Your task to perform on an android device: Search for "usb-a" on amazon.com, select the first entry, and add it to the cart. Image 0: 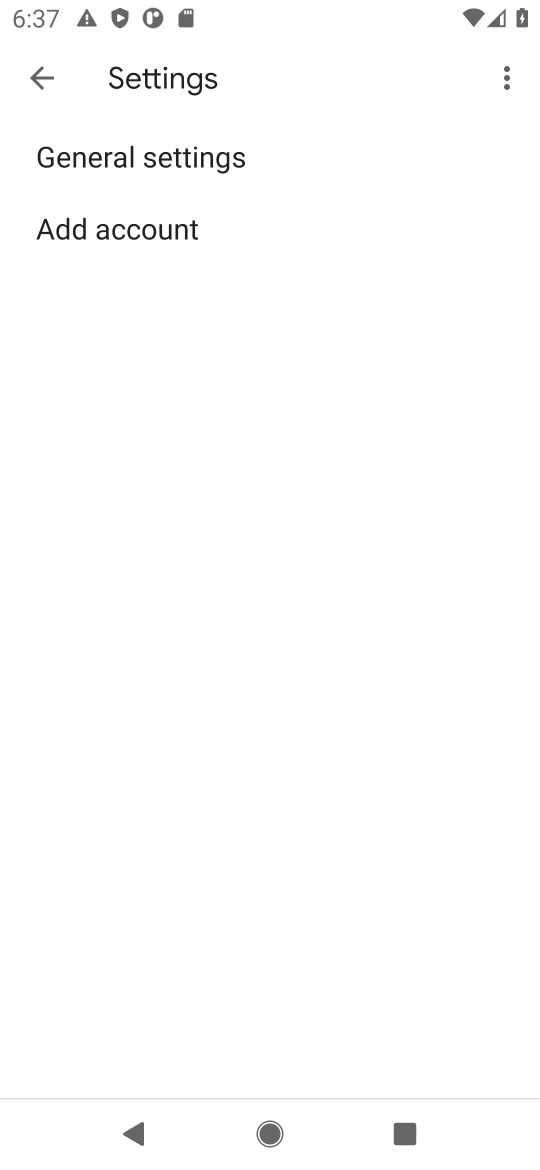
Step 0: press home button
Your task to perform on an android device: Search for "usb-a" on amazon.com, select the first entry, and add it to the cart. Image 1: 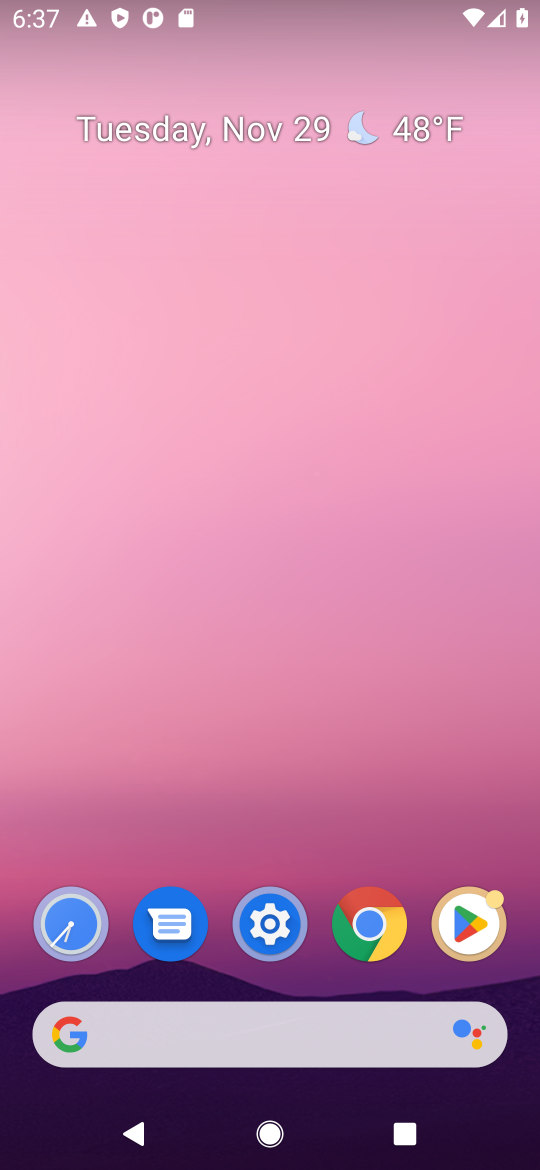
Step 1: click (164, 1056)
Your task to perform on an android device: Search for "usb-a" on amazon.com, select the first entry, and add it to the cart. Image 2: 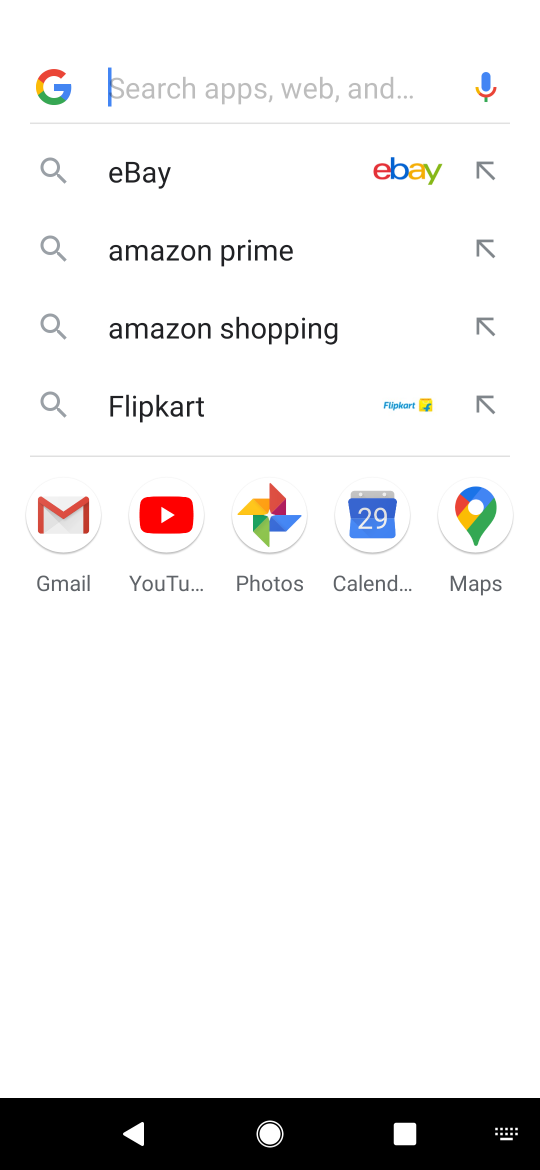
Step 2: click (179, 302)
Your task to perform on an android device: Search for "usb-a" on amazon.com, select the first entry, and add it to the cart. Image 3: 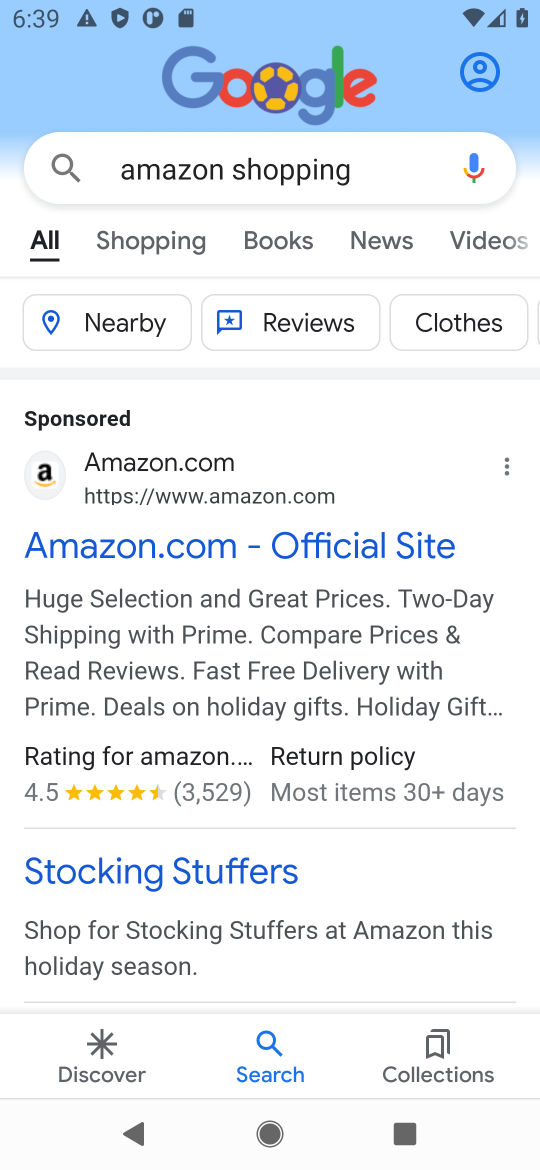
Step 3: click (69, 539)
Your task to perform on an android device: Search for "usb-a" on amazon.com, select the first entry, and add it to the cart. Image 4: 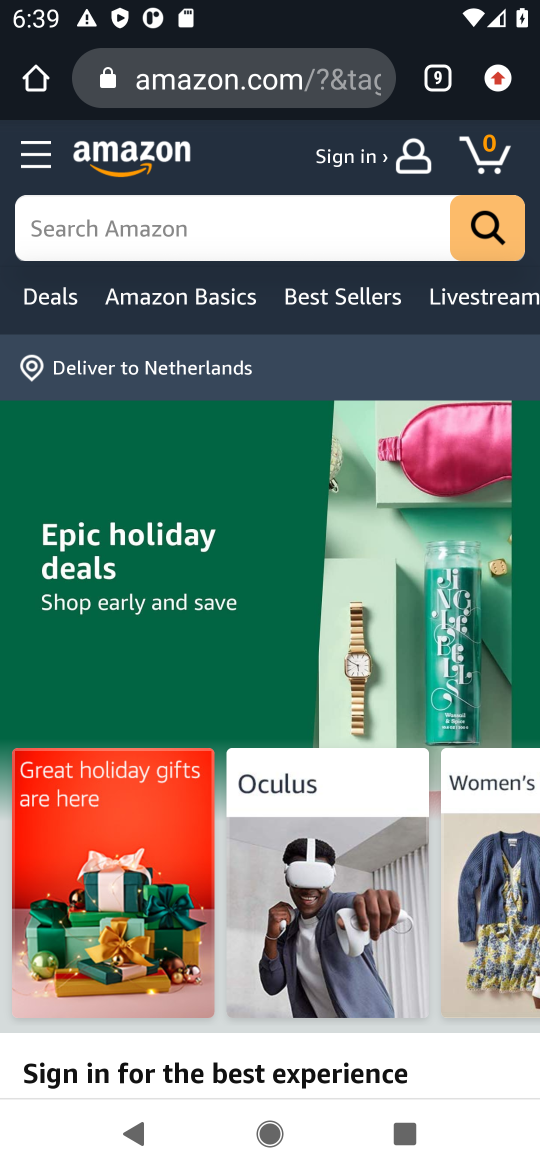
Step 4: task complete